Your task to perform on an android device: set the stopwatch Image 0: 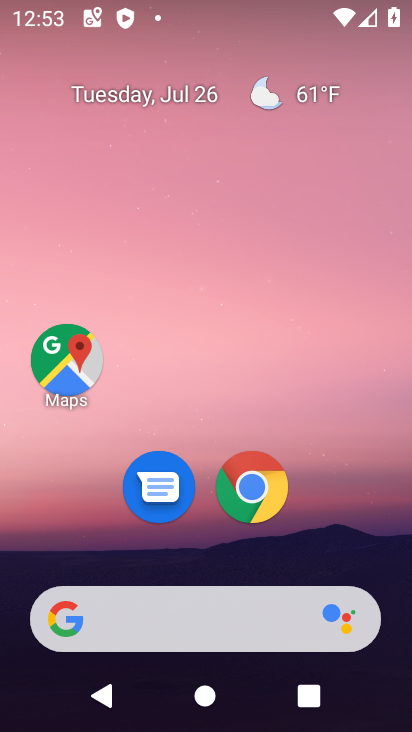
Step 0: drag from (112, 530) to (155, 43)
Your task to perform on an android device: set the stopwatch Image 1: 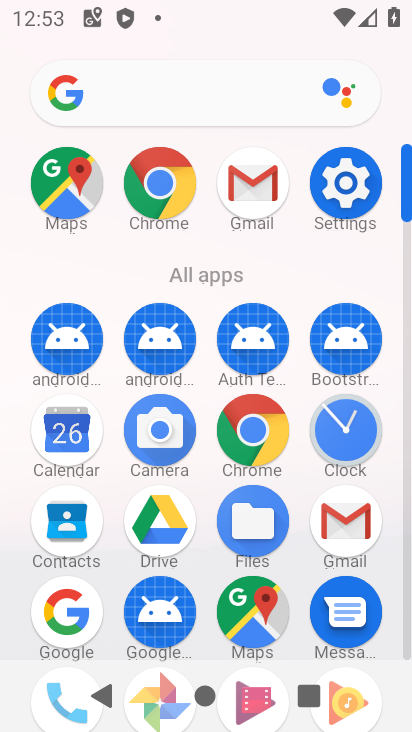
Step 1: click (351, 428)
Your task to perform on an android device: set the stopwatch Image 2: 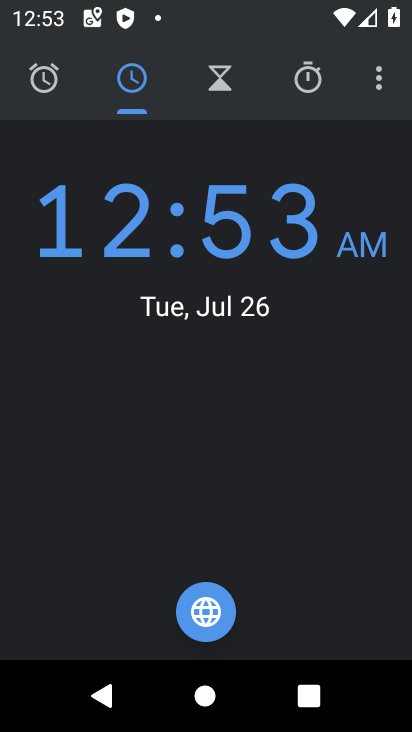
Step 2: click (310, 82)
Your task to perform on an android device: set the stopwatch Image 3: 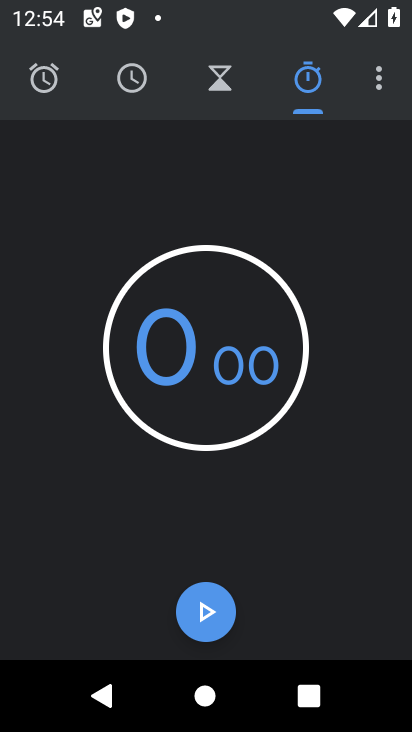
Step 3: click (211, 367)
Your task to perform on an android device: set the stopwatch Image 4: 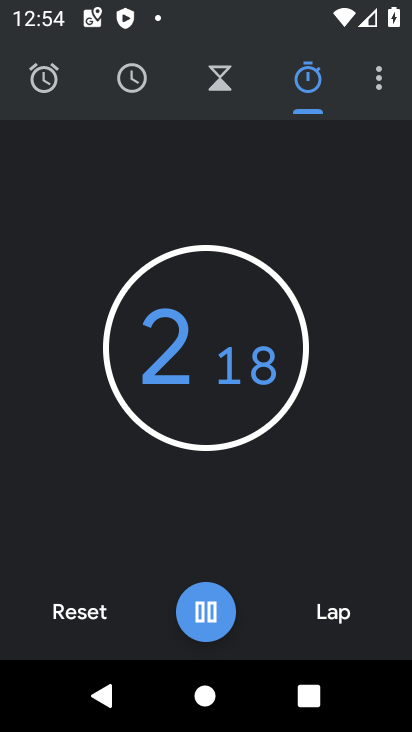
Step 4: click (207, 363)
Your task to perform on an android device: set the stopwatch Image 5: 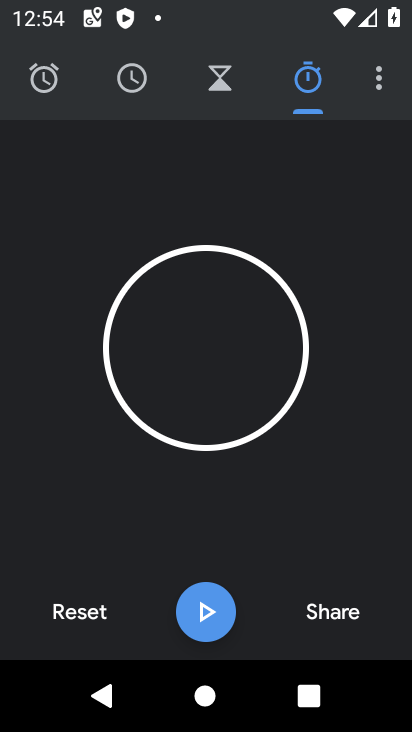
Step 5: task complete